Your task to perform on an android device: Search for Mexican restaurants on Maps Image 0: 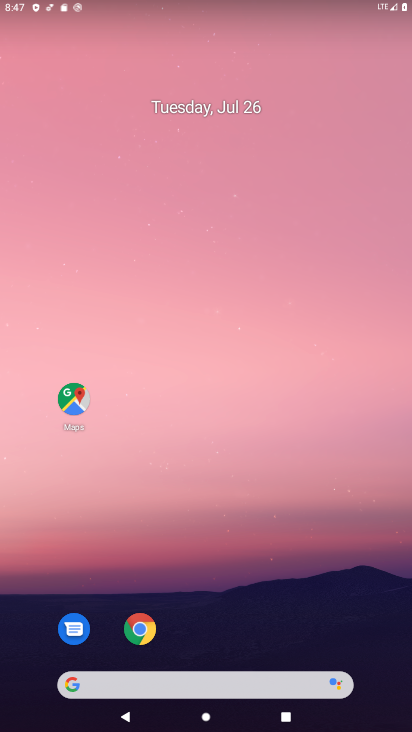
Step 0: click (65, 406)
Your task to perform on an android device: Search for Mexican restaurants on Maps Image 1: 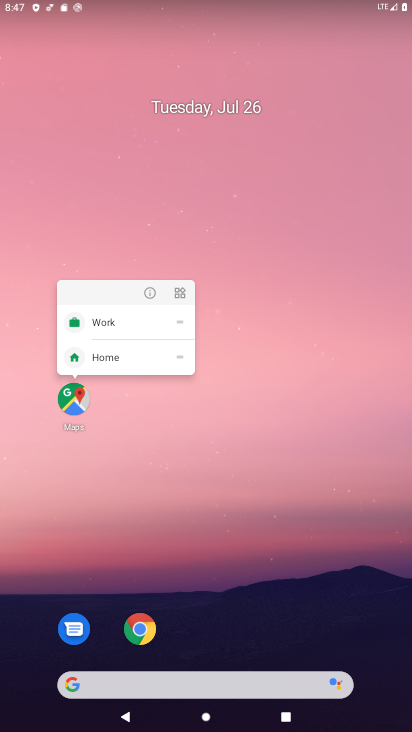
Step 1: click (66, 405)
Your task to perform on an android device: Search for Mexican restaurants on Maps Image 2: 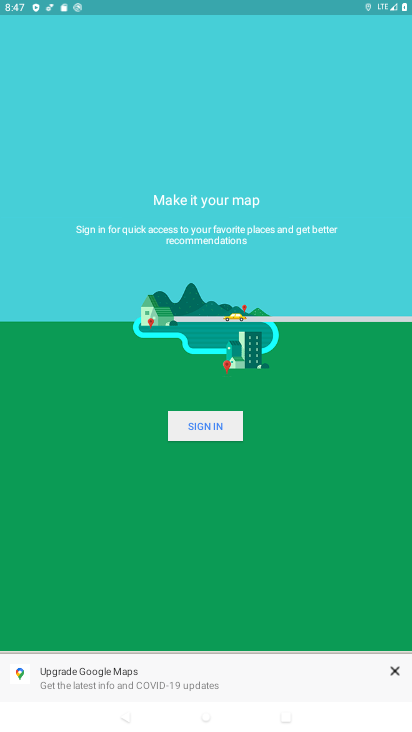
Step 2: click (395, 665)
Your task to perform on an android device: Search for Mexican restaurants on Maps Image 3: 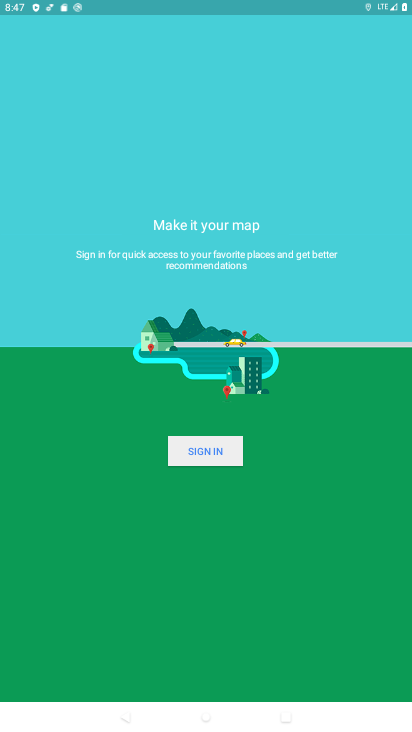
Step 3: press back button
Your task to perform on an android device: Search for Mexican restaurants on Maps Image 4: 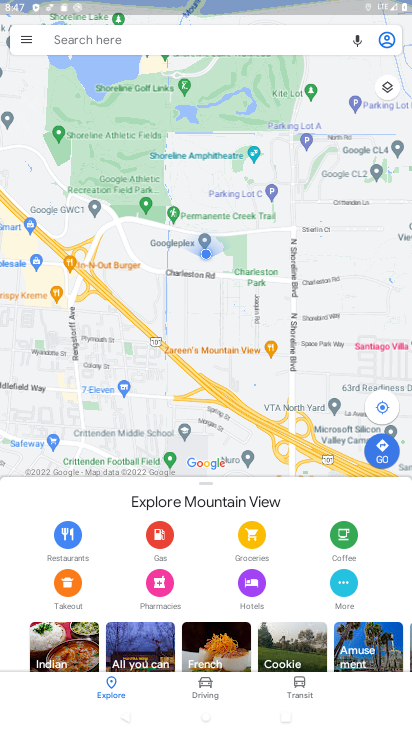
Step 4: click (98, 34)
Your task to perform on an android device: Search for Mexican restaurants on Maps Image 5: 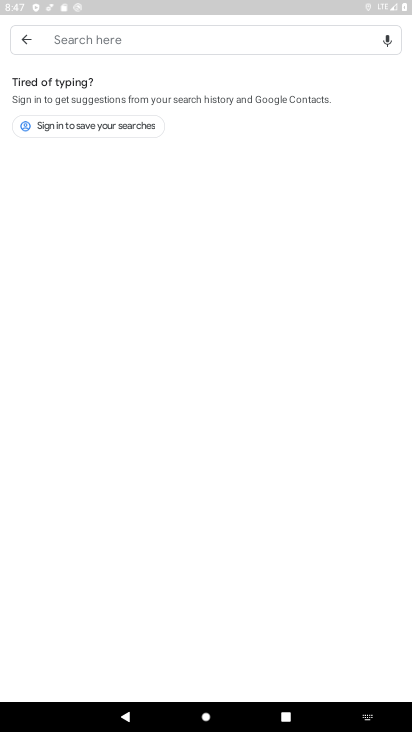
Step 5: task complete